Your task to perform on an android device: Go to ESPN.com Image 0: 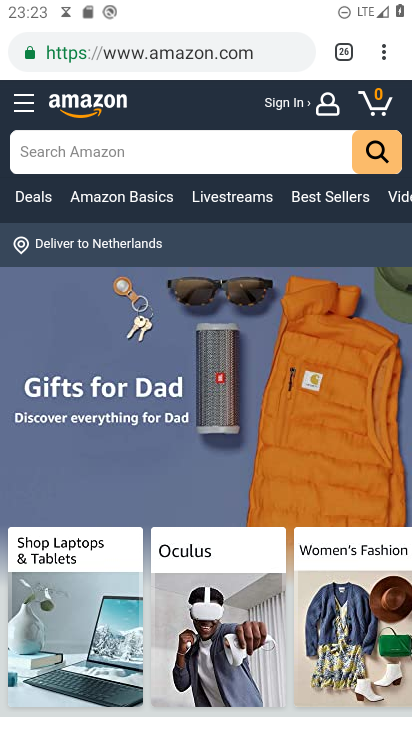
Step 0: click (387, 53)
Your task to perform on an android device: Go to ESPN.com Image 1: 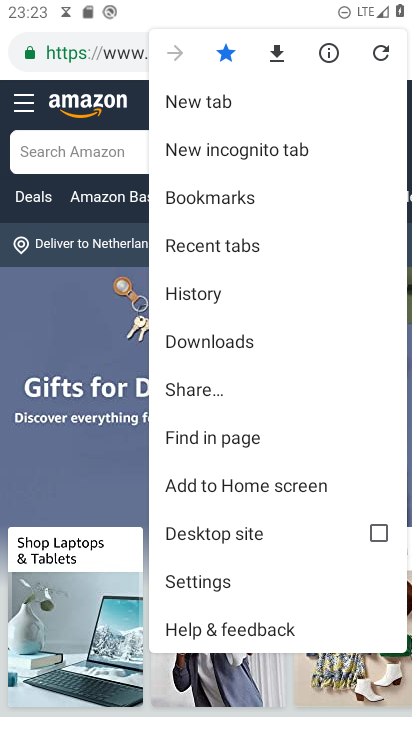
Step 1: click (221, 86)
Your task to perform on an android device: Go to ESPN.com Image 2: 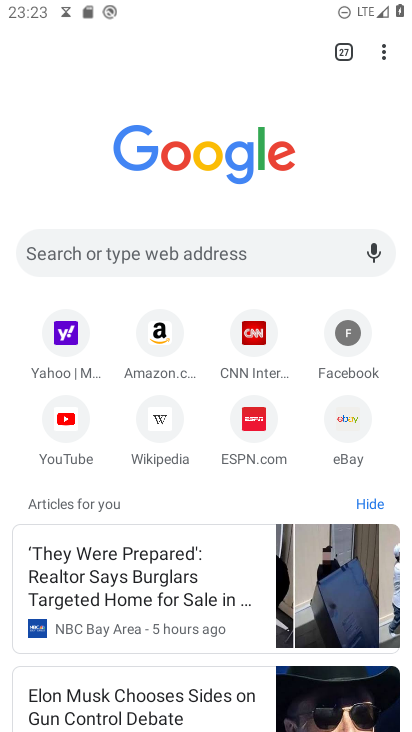
Step 2: click (247, 432)
Your task to perform on an android device: Go to ESPN.com Image 3: 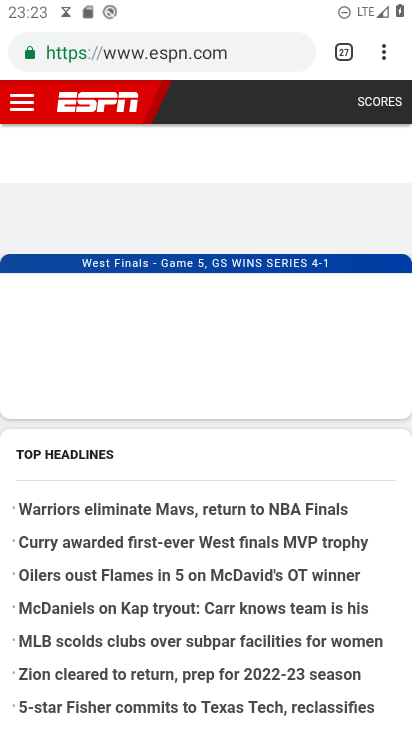
Step 3: task complete